Your task to perform on an android device: toggle javascript in the chrome app Image 0: 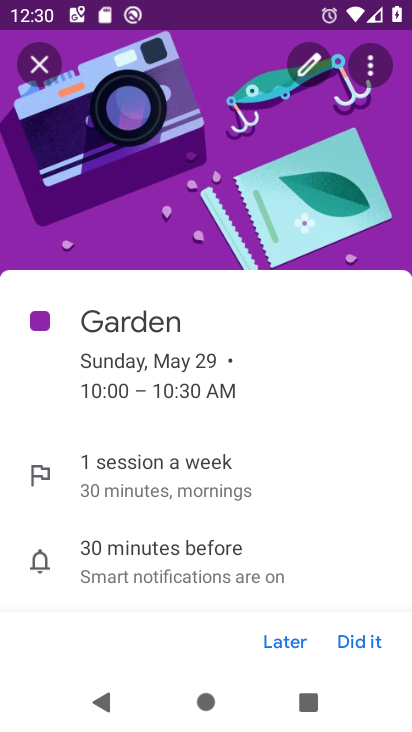
Step 0: press home button
Your task to perform on an android device: toggle javascript in the chrome app Image 1: 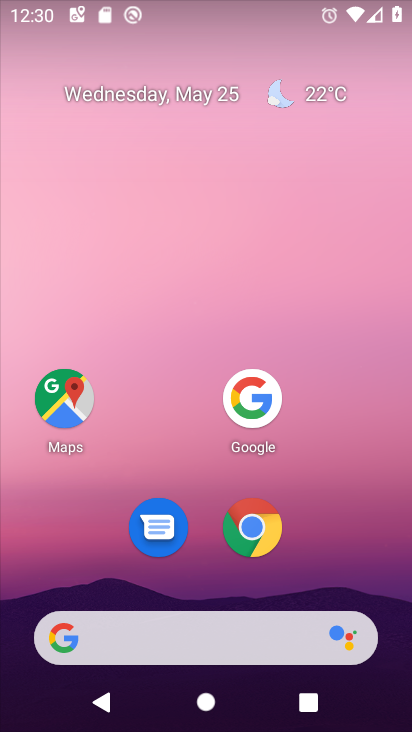
Step 1: click (263, 531)
Your task to perform on an android device: toggle javascript in the chrome app Image 2: 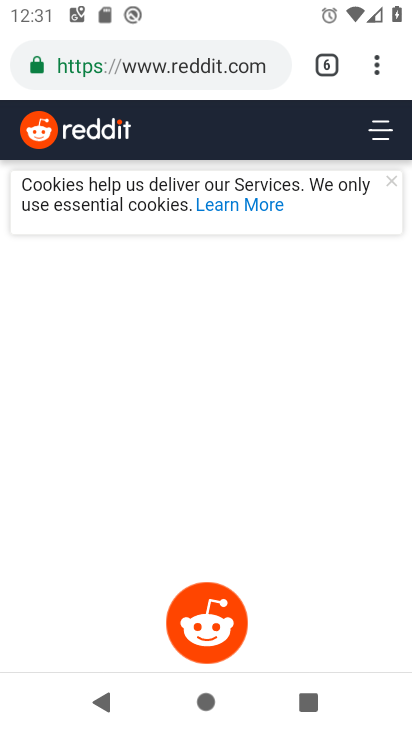
Step 2: drag from (376, 66) to (221, 567)
Your task to perform on an android device: toggle javascript in the chrome app Image 3: 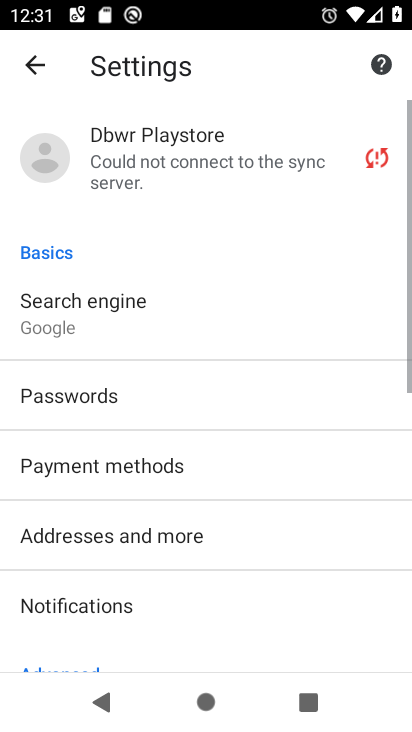
Step 3: drag from (173, 624) to (349, 177)
Your task to perform on an android device: toggle javascript in the chrome app Image 4: 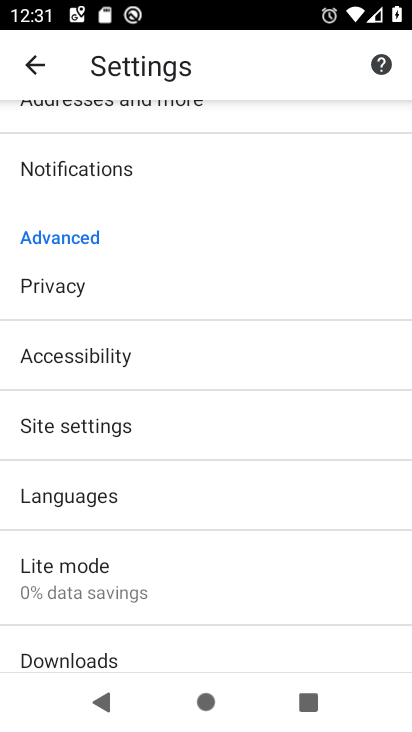
Step 4: click (130, 427)
Your task to perform on an android device: toggle javascript in the chrome app Image 5: 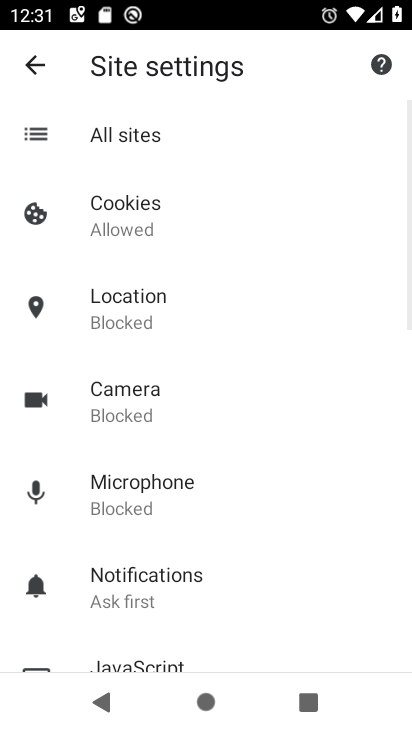
Step 5: drag from (176, 632) to (311, 226)
Your task to perform on an android device: toggle javascript in the chrome app Image 6: 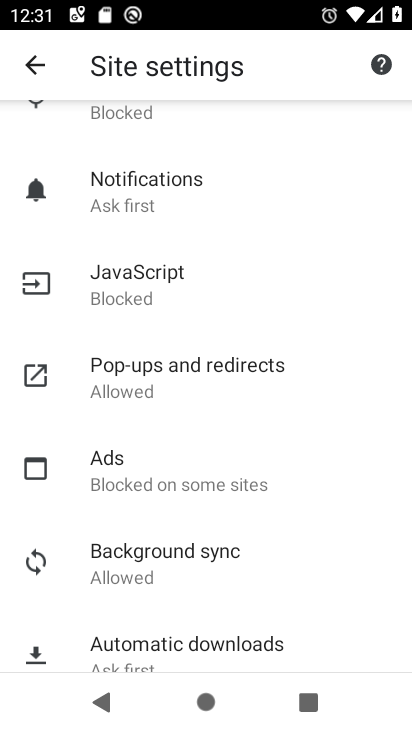
Step 6: click (139, 301)
Your task to perform on an android device: toggle javascript in the chrome app Image 7: 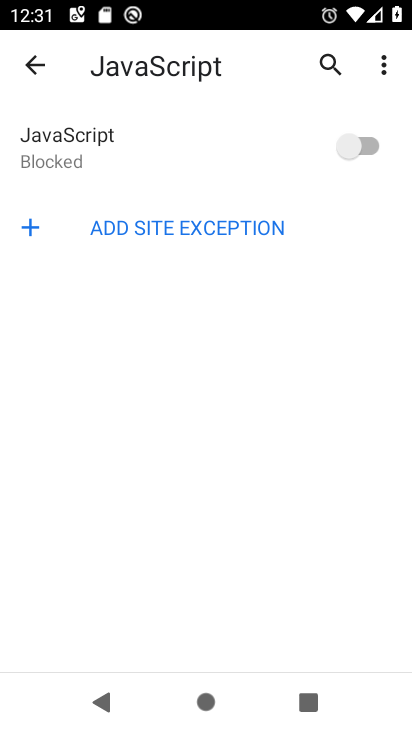
Step 7: click (367, 143)
Your task to perform on an android device: toggle javascript in the chrome app Image 8: 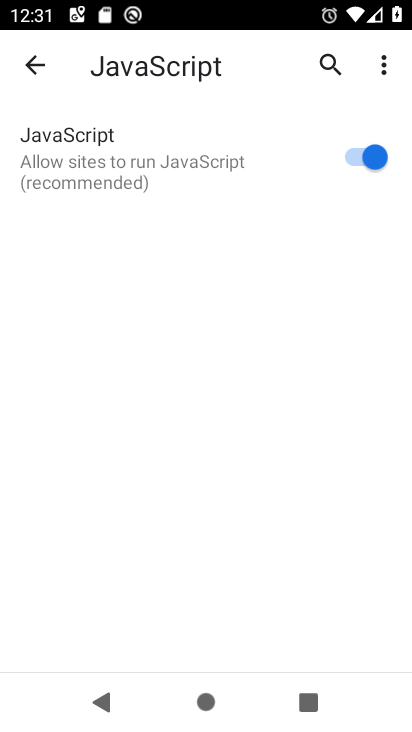
Step 8: task complete